Your task to perform on an android device: star an email in the gmail app Image 0: 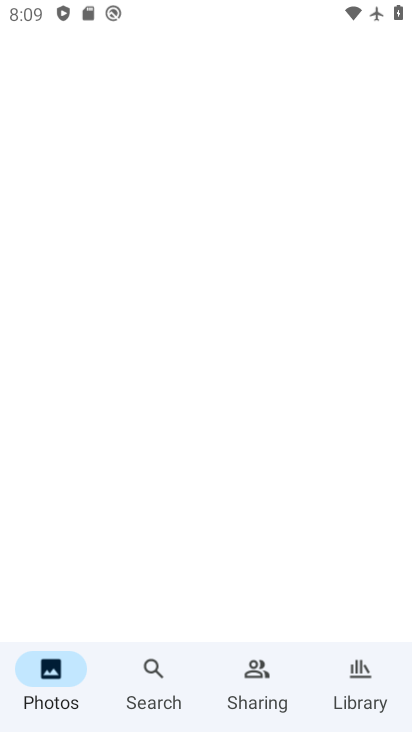
Step 0: drag from (214, 646) to (184, 219)
Your task to perform on an android device: star an email in the gmail app Image 1: 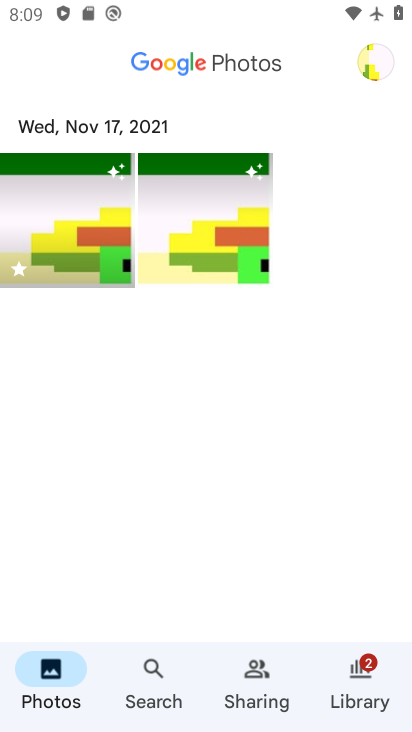
Step 1: press home button
Your task to perform on an android device: star an email in the gmail app Image 2: 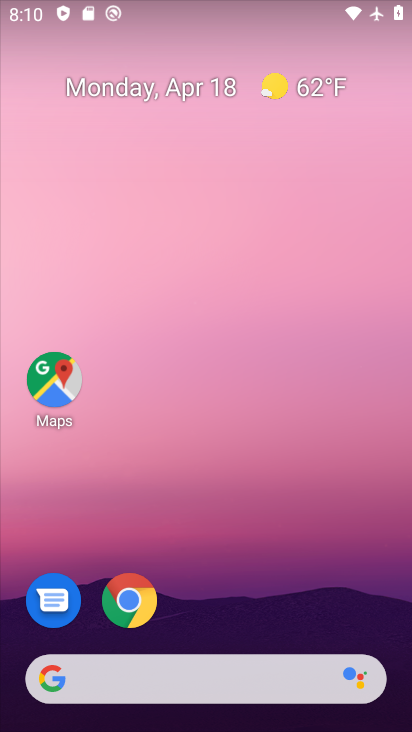
Step 2: drag from (218, 646) to (390, 358)
Your task to perform on an android device: star an email in the gmail app Image 3: 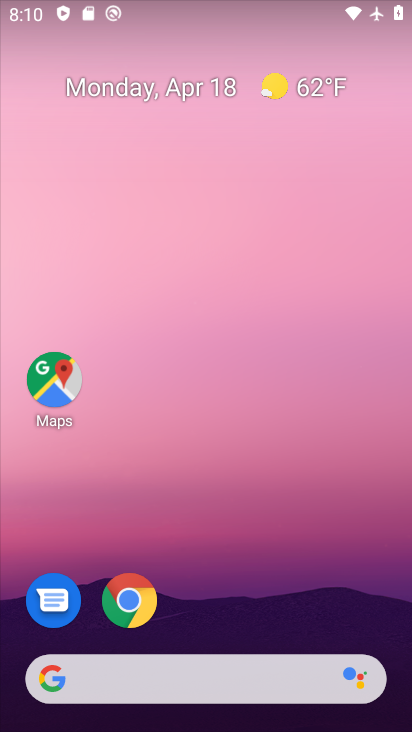
Step 3: drag from (214, 637) to (314, 39)
Your task to perform on an android device: star an email in the gmail app Image 4: 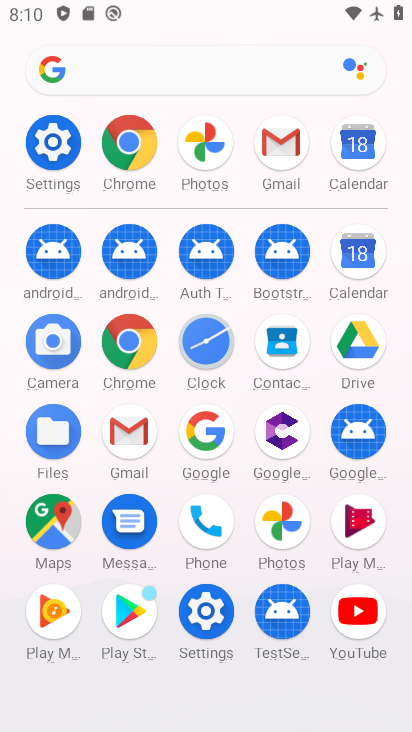
Step 4: click (140, 445)
Your task to perform on an android device: star an email in the gmail app Image 5: 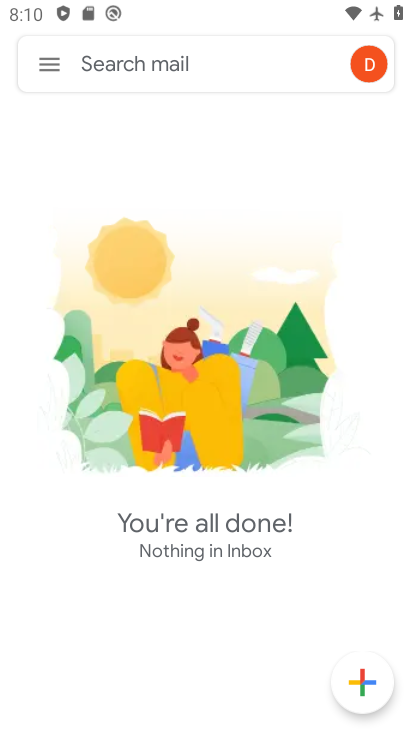
Step 5: click (61, 60)
Your task to perform on an android device: star an email in the gmail app Image 6: 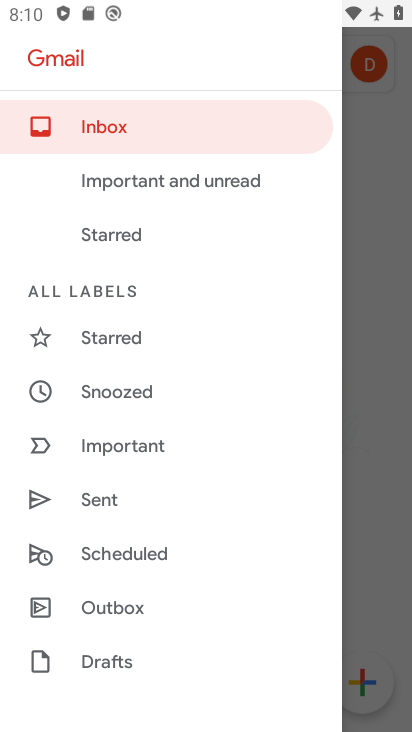
Step 6: click (98, 137)
Your task to perform on an android device: star an email in the gmail app Image 7: 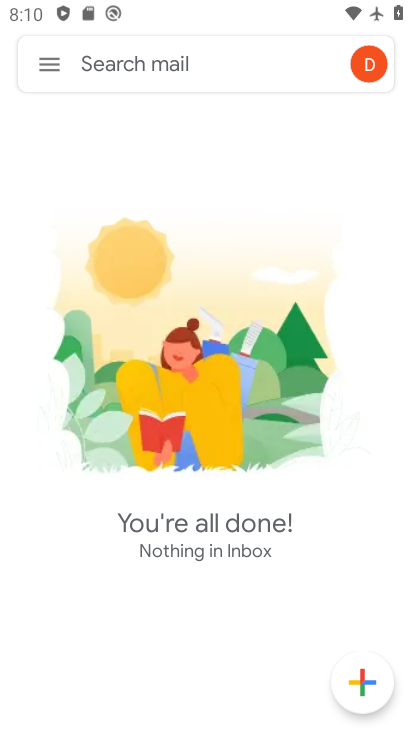
Step 7: task complete